Your task to perform on an android device: turn on location history Image 0: 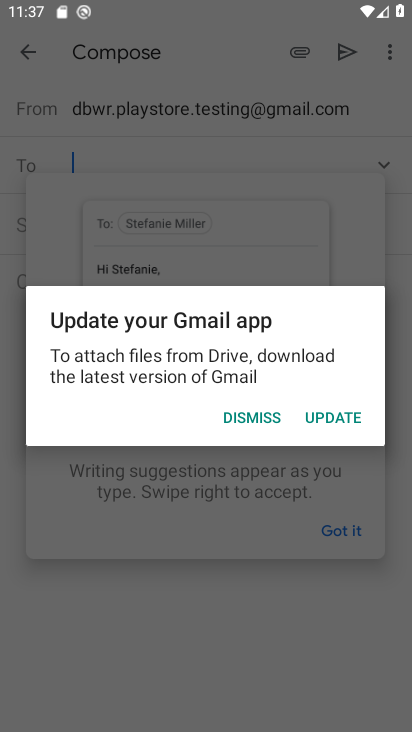
Step 0: press home button
Your task to perform on an android device: turn on location history Image 1: 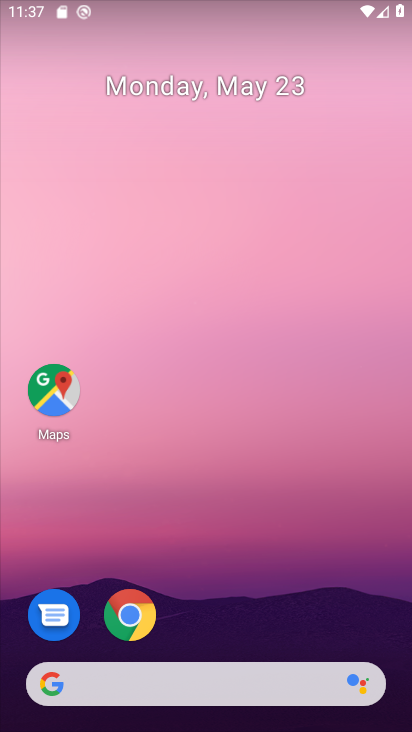
Step 1: drag from (259, 588) to (248, 36)
Your task to perform on an android device: turn on location history Image 2: 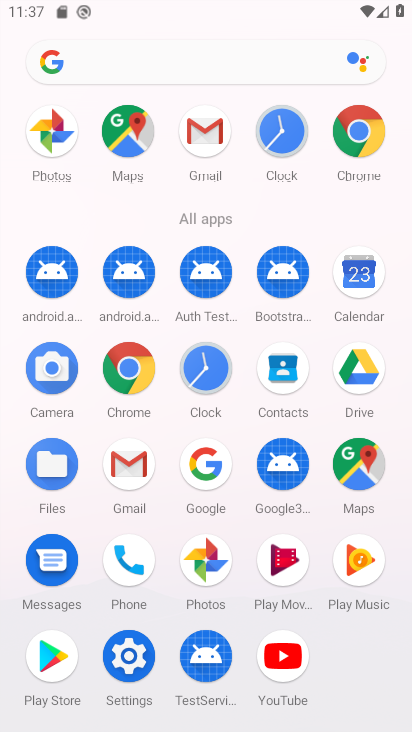
Step 2: click (128, 654)
Your task to perform on an android device: turn on location history Image 3: 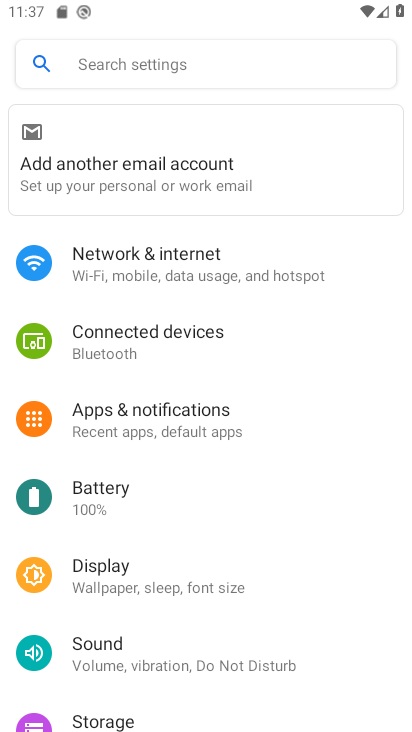
Step 3: drag from (184, 566) to (194, 522)
Your task to perform on an android device: turn on location history Image 4: 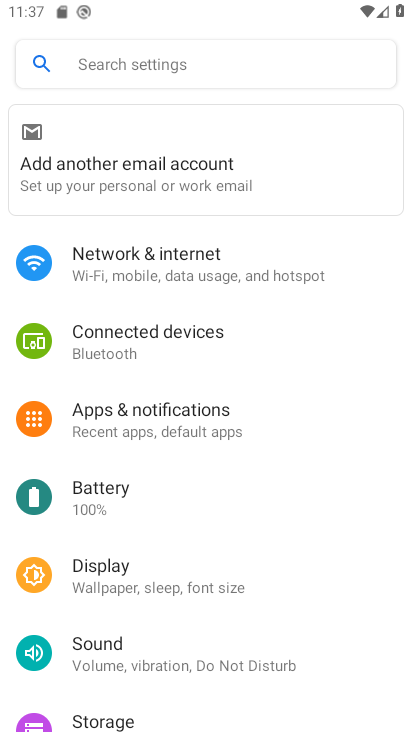
Step 4: drag from (174, 688) to (224, 438)
Your task to perform on an android device: turn on location history Image 5: 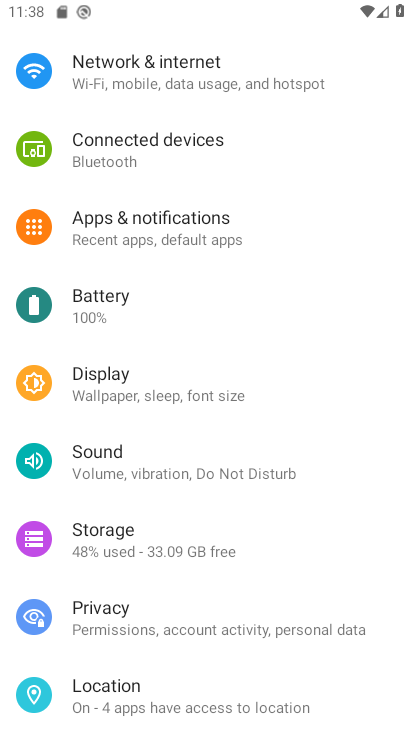
Step 5: click (105, 690)
Your task to perform on an android device: turn on location history Image 6: 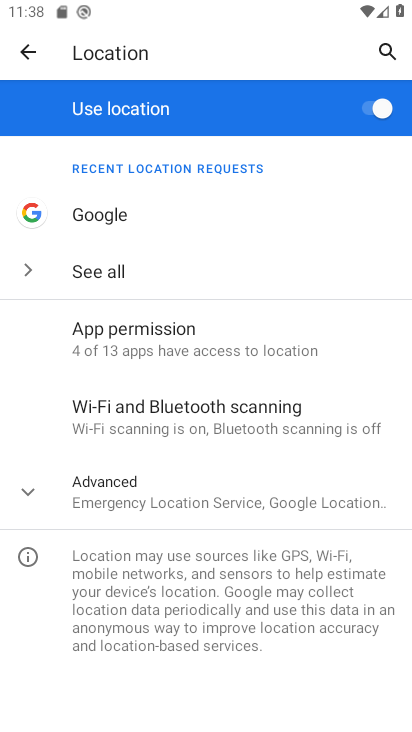
Step 6: click (219, 499)
Your task to perform on an android device: turn on location history Image 7: 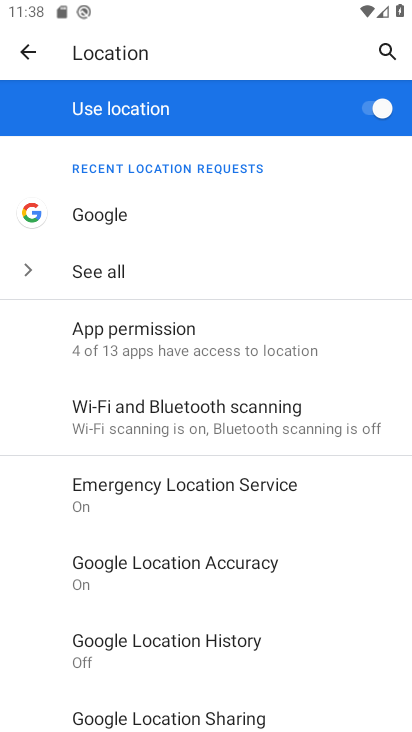
Step 7: click (159, 640)
Your task to perform on an android device: turn on location history Image 8: 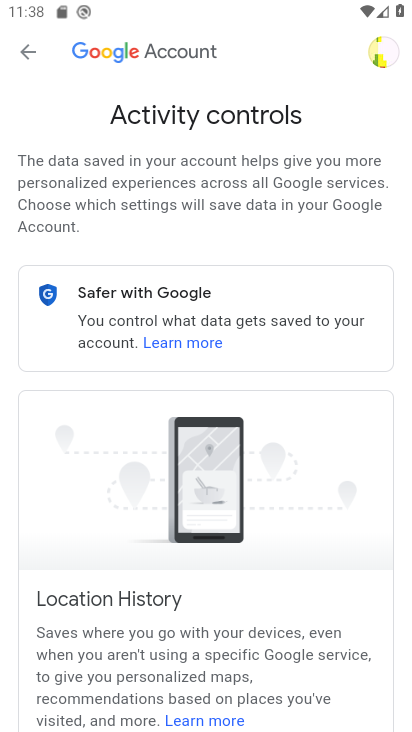
Step 8: drag from (209, 584) to (284, 387)
Your task to perform on an android device: turn on location history Image 9: 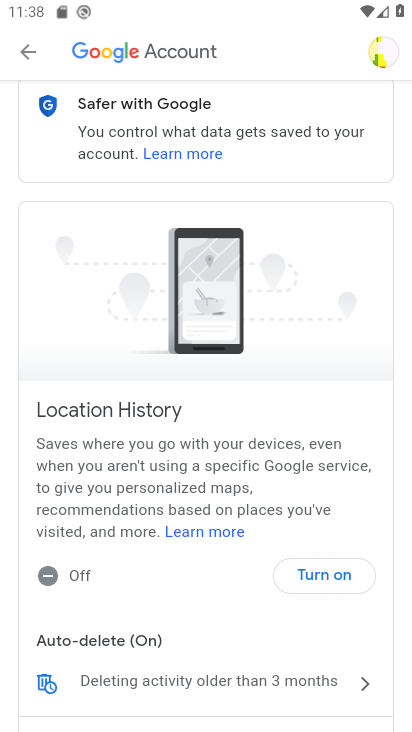
Step 9: click (317, 581)
Your task to perform on an android device: turn on location history Image 10: 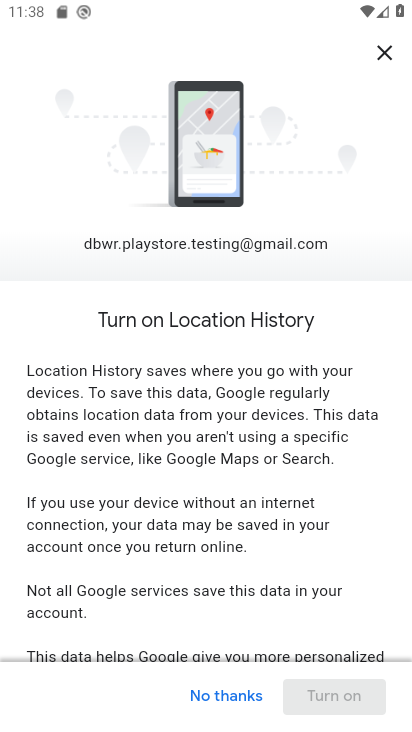
Step 10: drag from (254, 630) to (304, 416)
Your task to perform on an android device: turn on location history Image 11: 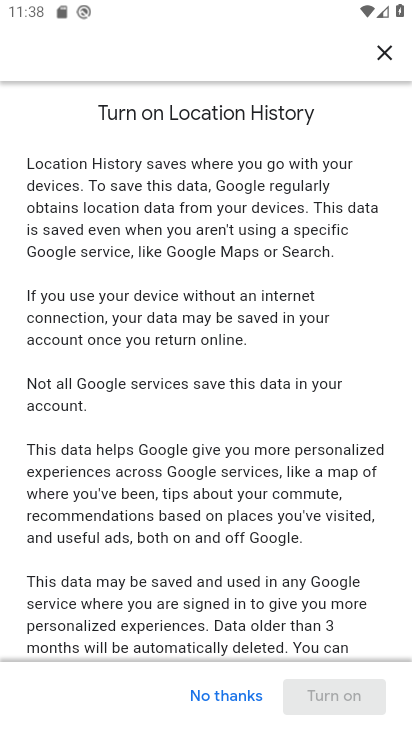
Step 11: drag from (238, 590) to (269, 425)
Your task to perform on an android device: turn on location history Image 12: 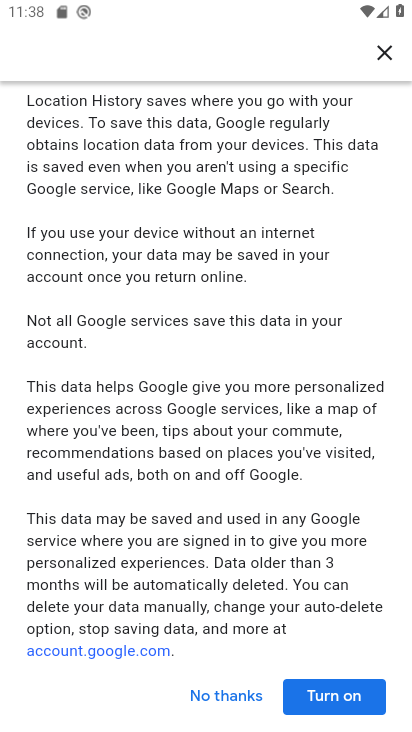
Step 12: click (336, 694)
Your task to perform on an android device: turn on location history Image 13: 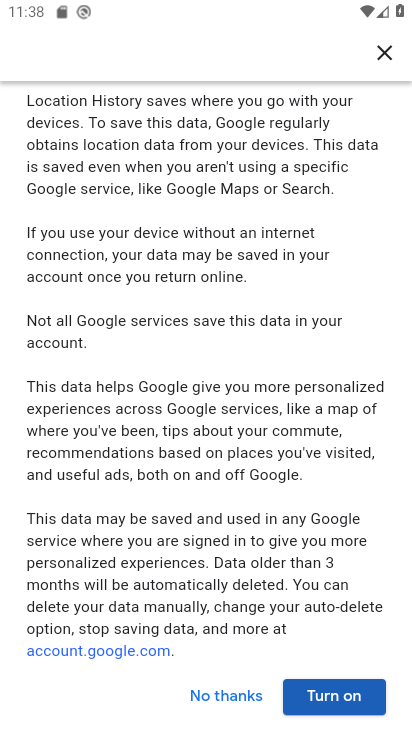
Step 13: click (336, 694)
Your task to perform on an android device: turn on location history Image 14: 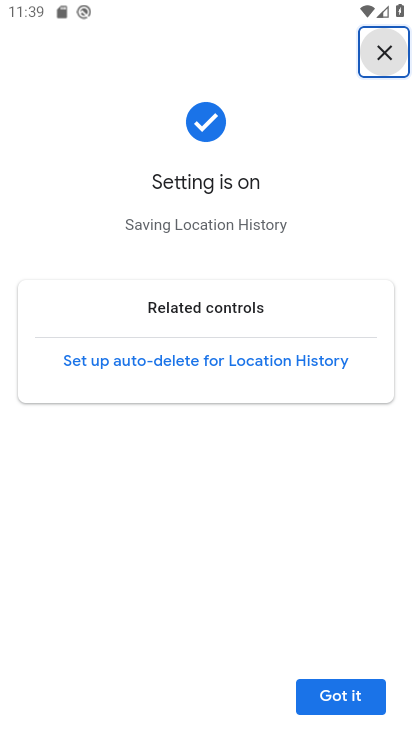
Step 14: click (334, 696)
Your task to perform on an android device: turn on location history Image 15: 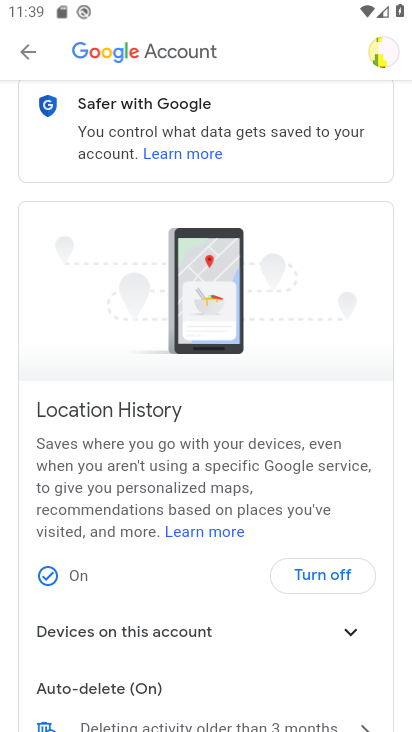
Step 15: task complete